Your task to perform on an android device: open wifi settings Image 0: 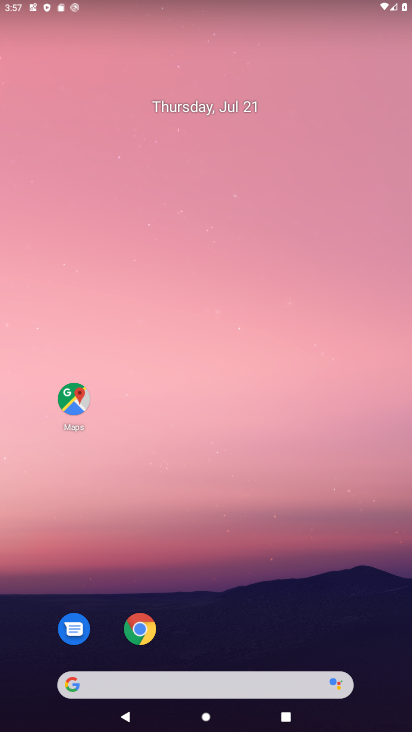
Step 0: drag from (255, 536) to (292, 56)
Your task to perform on an android device: open wifi settings Image 1: 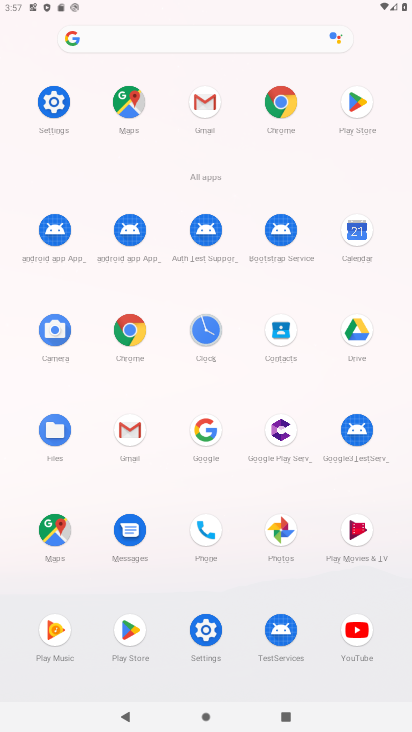
Step 1: click (45, 104)
Your task to perform on an android device: open wifi settings Image 2: 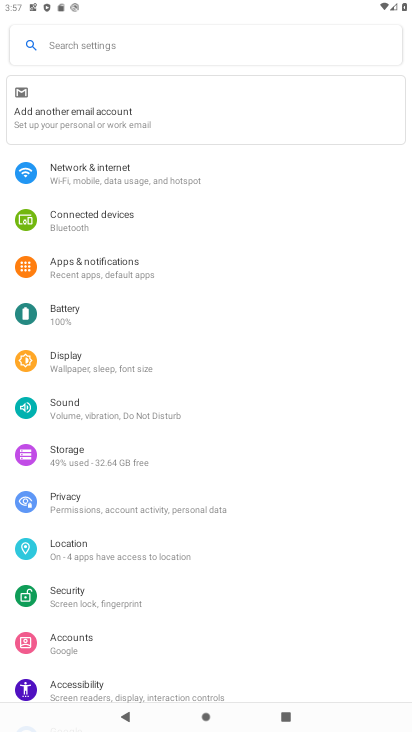
Step 2: click (117, 176)
Your task to perform on an android device: open wifi settings Image 3: 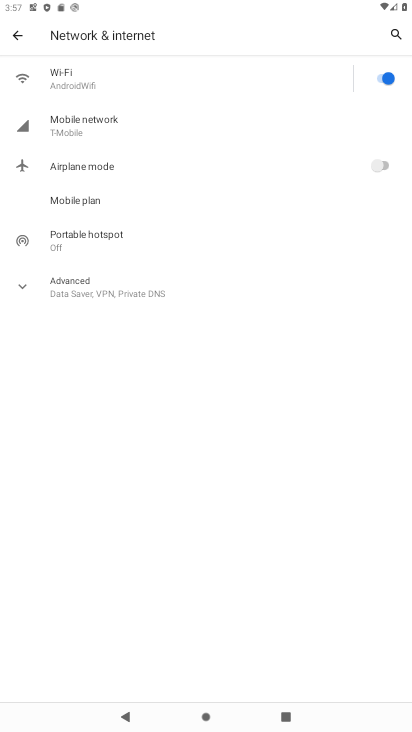
Step 3: click (86, 84)
Your task to perform on an android device: open wifi settings Image 4: 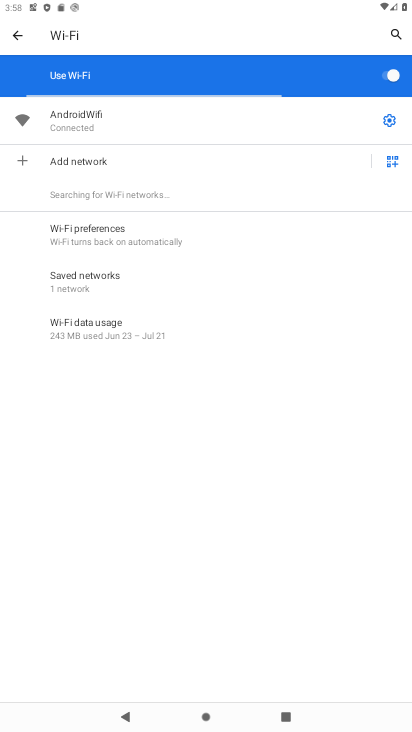
Step 4: task complete